Your task to perform on an android device: turn off notifications in google photos Image 0: 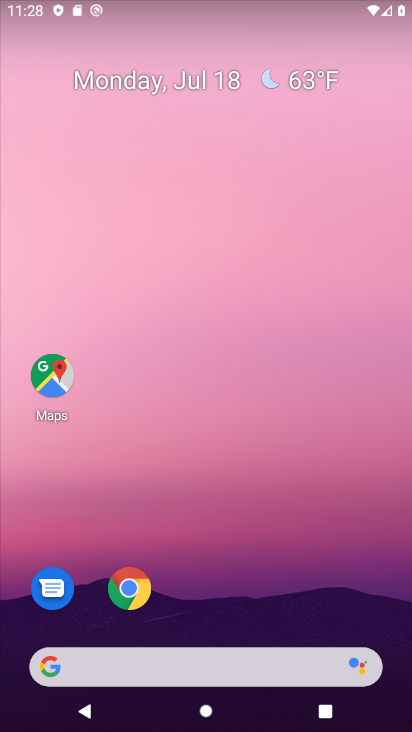
Step 0: drag from (346, 587) to (396, 17)
Your task to perform on an android device: turn off notifications in google photos Image 1: 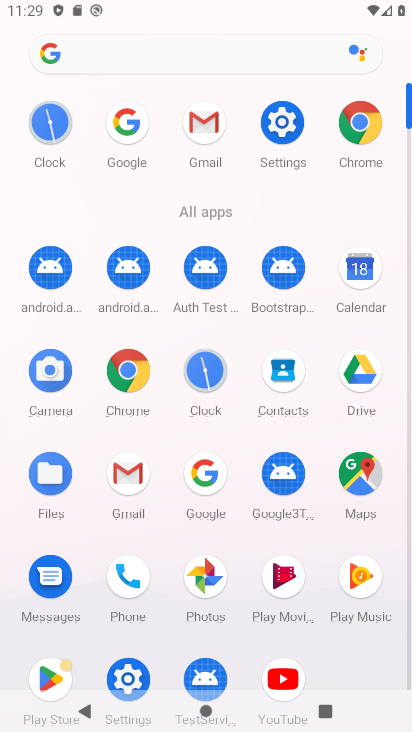
Step 1: click (202, 592)
Your task to perform on an android device: turn off notifications in google photos Image 2: 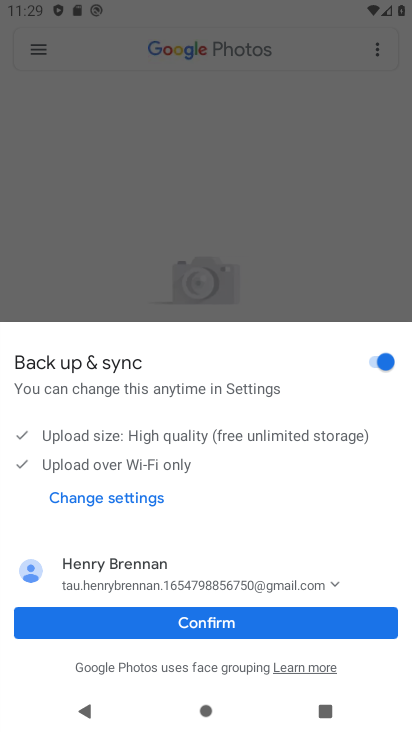
Step 2: press home button
Your task to perform on an android device: turn off notifications in google photos Image 3: 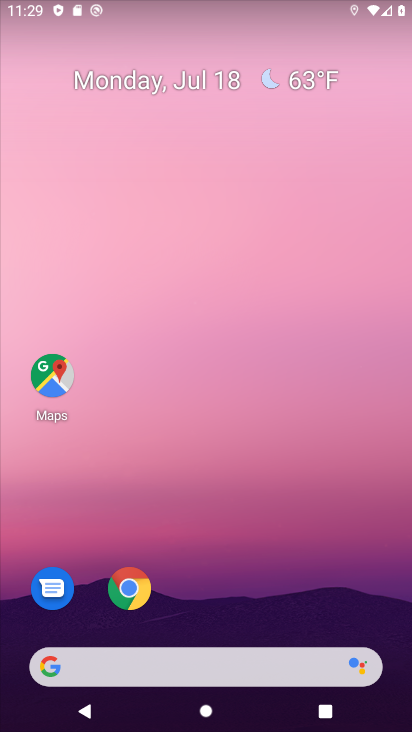
Step 3: drag from (249, 212) to (239, 80)
Your task to perform on an android device: turn off notifications in google photos Image 4: 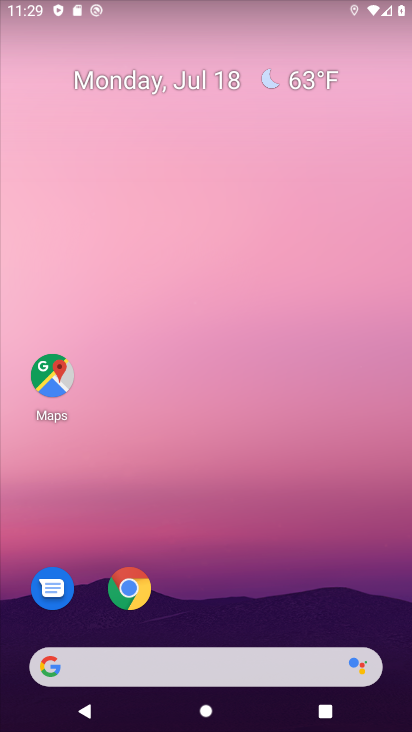
Step 4: drag from (265, 544) to (316, 17)
Your task to perform on an android device: turn off notifications in google photos Image 5: 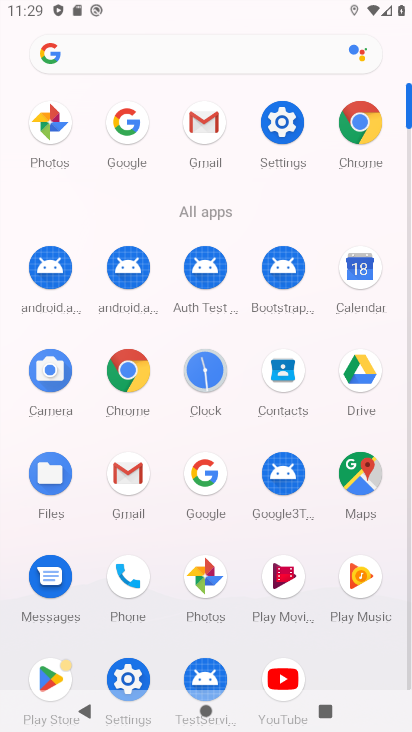
Step 5: click (59, 140)
Your task to perform on an android device: turn off notifications in google photos Image 6: 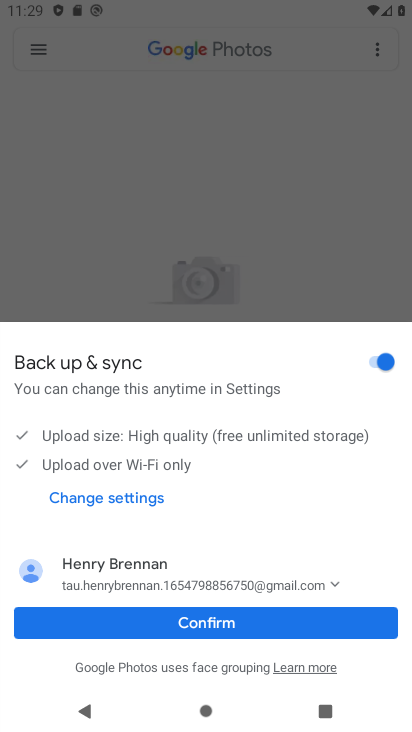
Step 6: click (188, 619)
Your task to perform on an android device: turn off notifications in google photos Image 7: 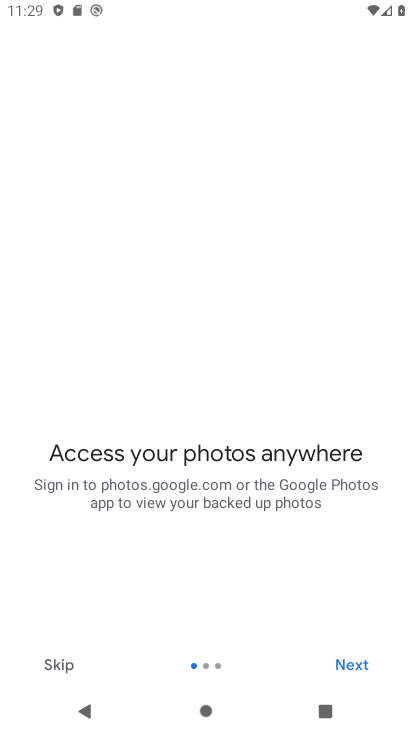
Step 7: click (356, 663)
Your task to perform on an android device: turn off notifications in google photos Image 8: 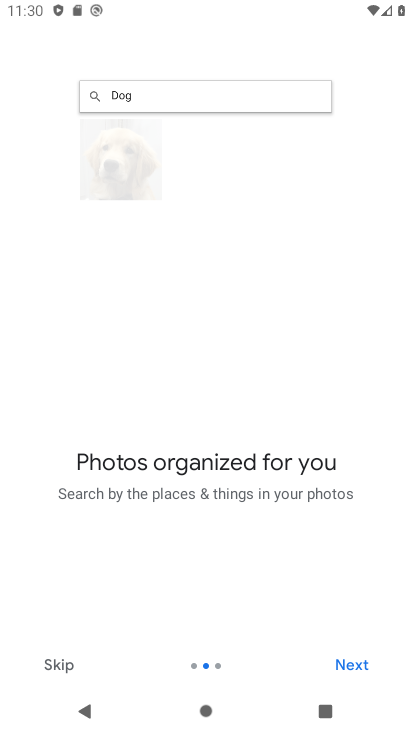
Step 8: click (355, 663)
Your task to perform on an android device: turn off notifications in google photos Image 9: 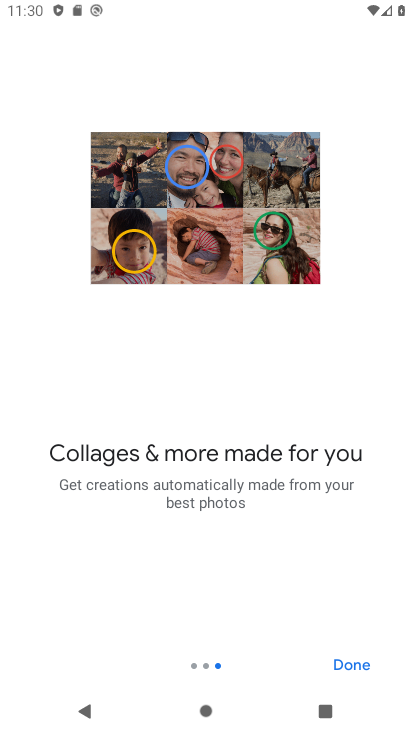
Step 9: click (355, 663)
Your task to perform on an android device: turn off notifications in google photos Image 10: 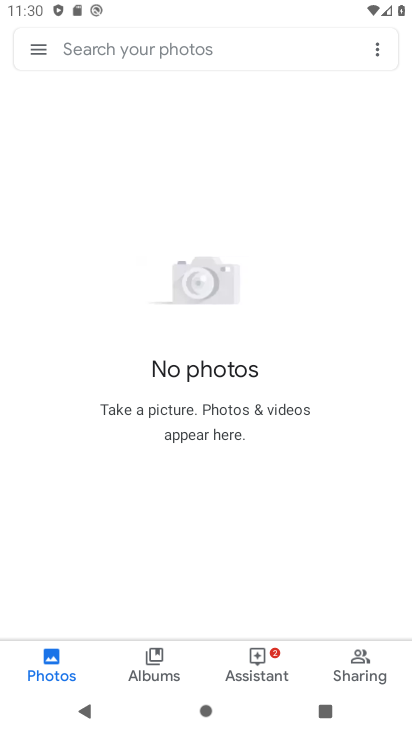
Step 10: click (35, 46)
Your task to perform on an android device: turn off notifications in google photos Image 11: 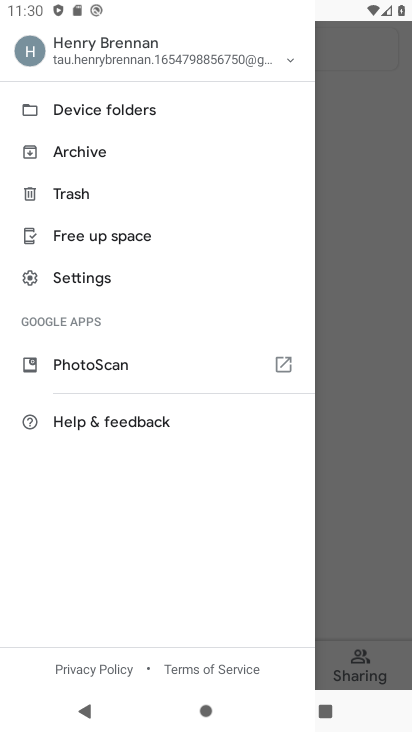
Step 11: click (77, 283)
Your task to perform on an android device: turn off notifications in google photos Image 12: 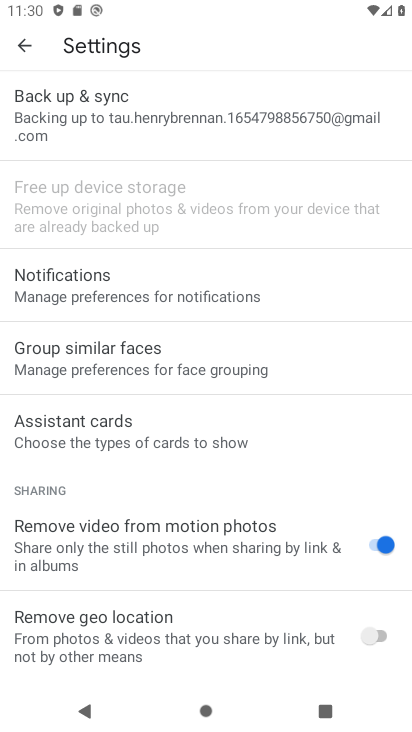
Step 12: click (74, 281)
Your task to perform on an android device: turn off notifications in google photos Image 13: 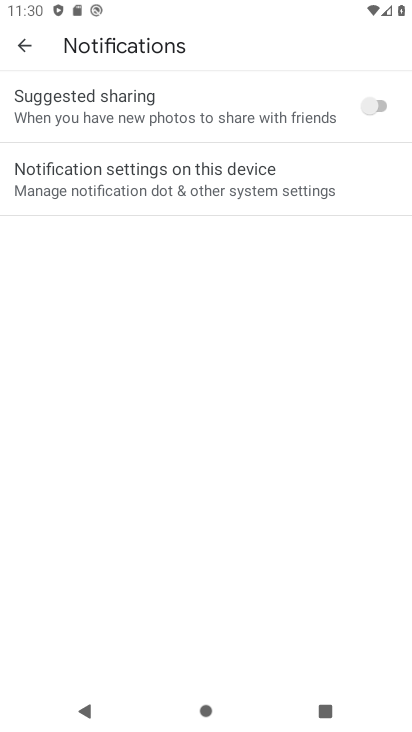
Step 13: click (146, 184)
Your task to perform on an android device: turn off notifications in google photos Image 14: 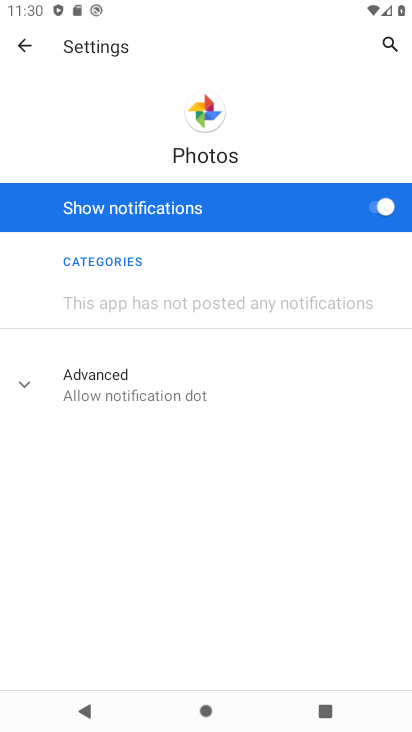
Step 14: click (381, 215)
Your task to perform on an android device: turn off notifications in google photos Image 15: 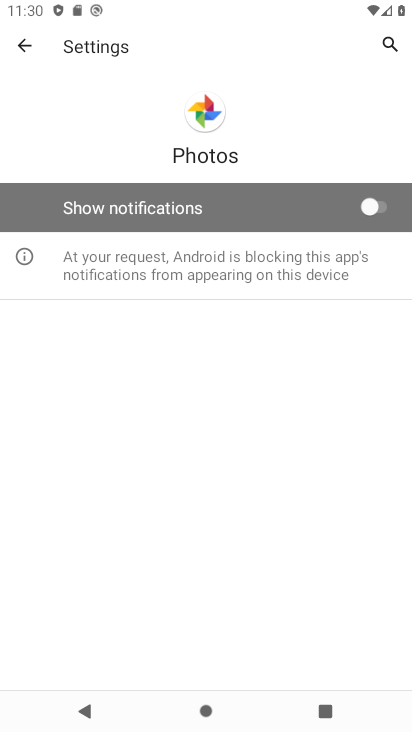
Step 15: task complete